Your task to perform on an android device: read, delete, or share a saved page in the chrome app Image 0: 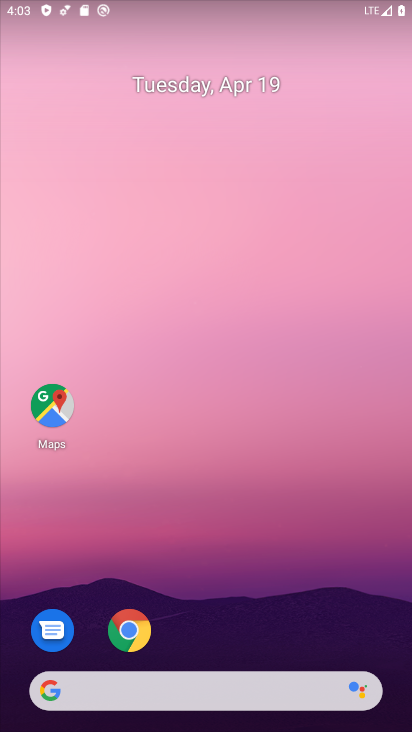
Step 0: click (113, 632)
Your task to perform on an android device: read, delete, or share a saved page in the chrome app Image 1: 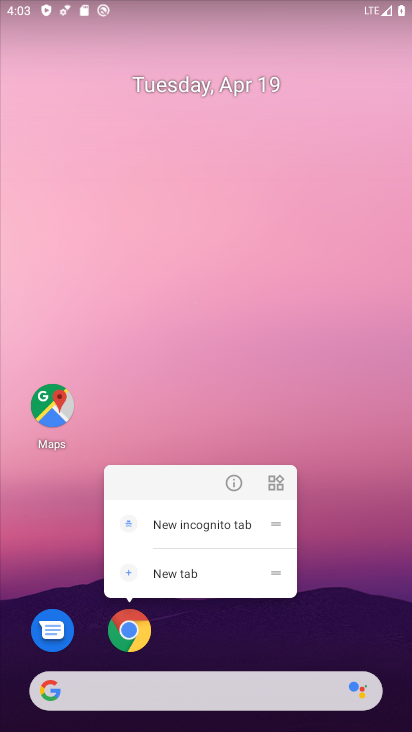
Step 1: click (130, 639)
Your task to perform on an android device: read, delete, or share a saved page in the chrome app Image 2: 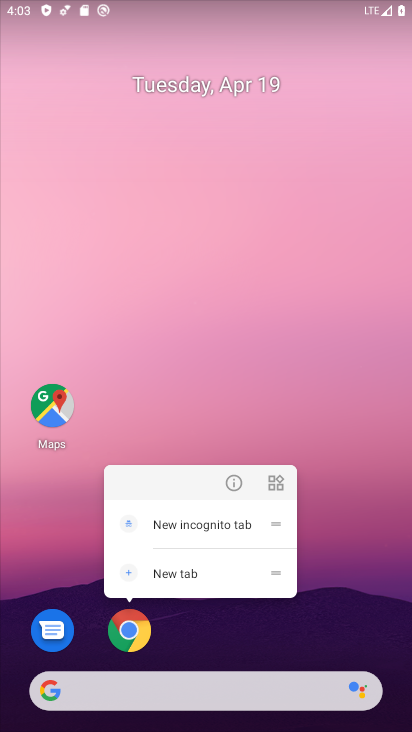
Step 2: click (134, 637)
Your task to perform on an android device: read, delete, or share a saved page in the chrome app Image 3: 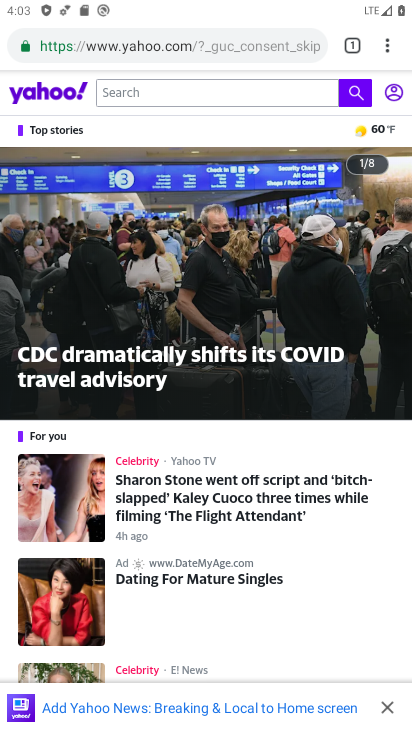
Step 3: drag from (391, 52) to (251, 365)
Your task to perform on an android device: read, delete, or share a saved page in the chrome app Image 4: 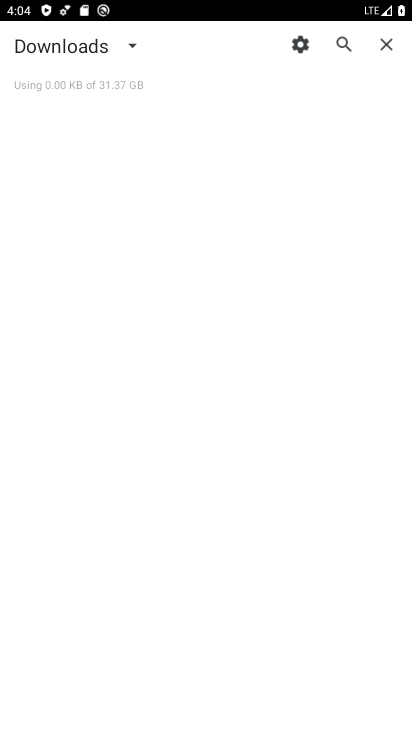
Step 4: click (126, 51)
Your task to perform on an android device: read, delete, or share a saved page in the chrome app Image 5: 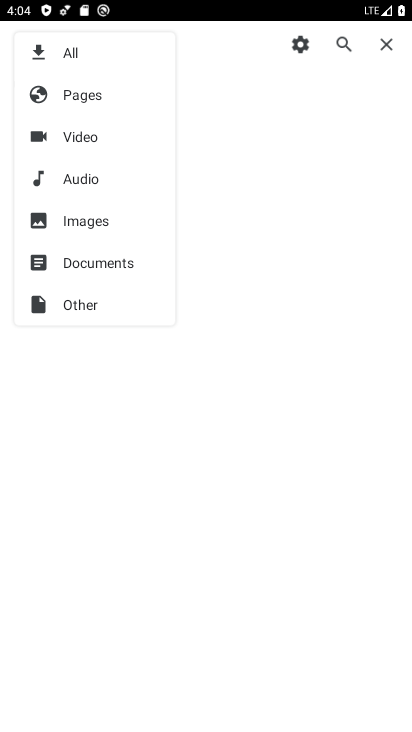
Step 5: click (88, 99)
Your task to perform on an android device: read, delete, or share a saved page in the chrome app Image 6: 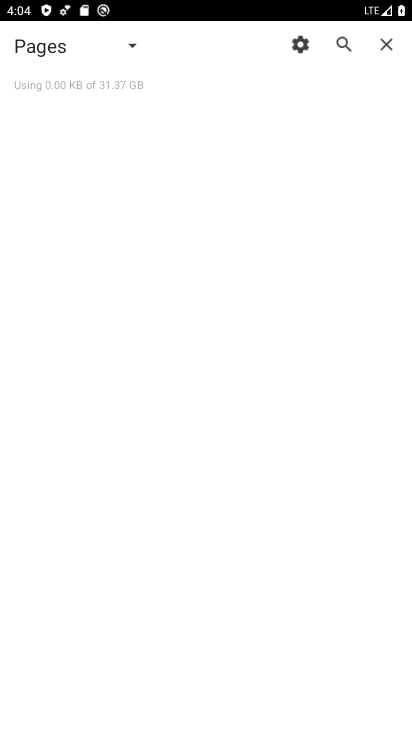
Step 6: task complete